Your task to perform on an android device: turn off smart reply in the gmail app Image 0: 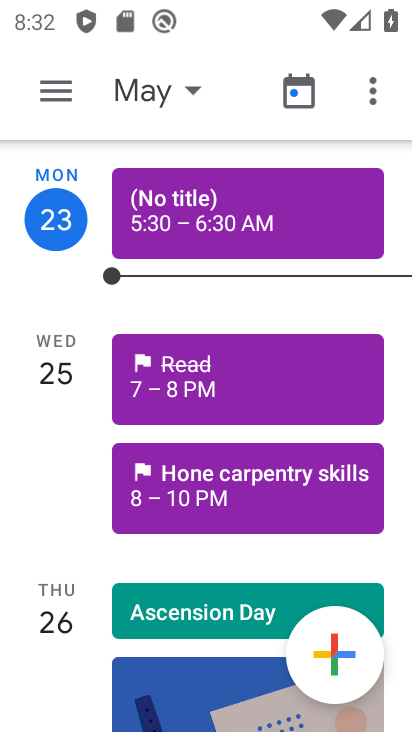
Step 0: press home button
Your task to perform on an android device: turn off smart reply in the gmail app Image 1: 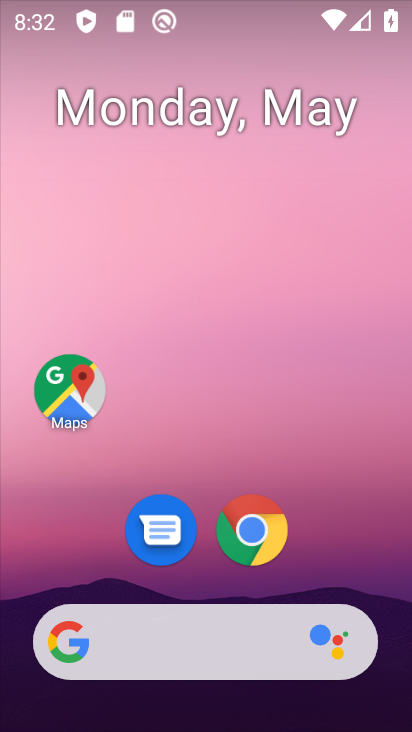
Step 1: drag from (398, 604) to (284, 165)
Your task to perform on an android device: turn off smart reply in the gmail app Image 2: 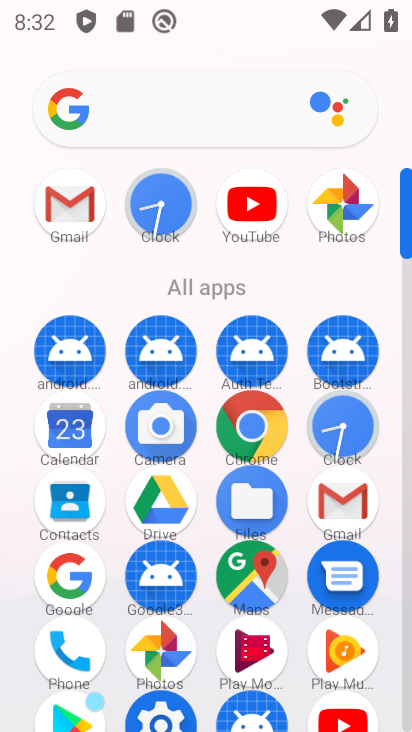
Step 2: click (82, 202)
Your task to perform on an android device: turn off smart reply in the gmail app Image 3: 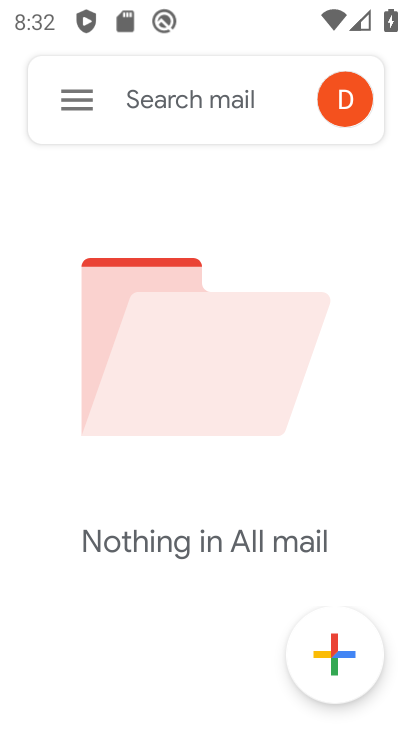
Step 3: click (82, 103)
Your task to perform on an android device: turn off smart reply in the gmail app Image 4: 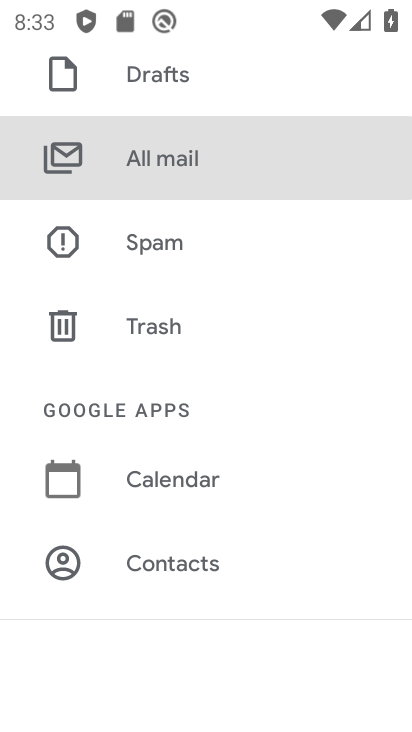
Step 4: drag from (172, 620) to (203, 170)
Your task to perform on an android device: turn off smart reply in the gmail app Image 5: 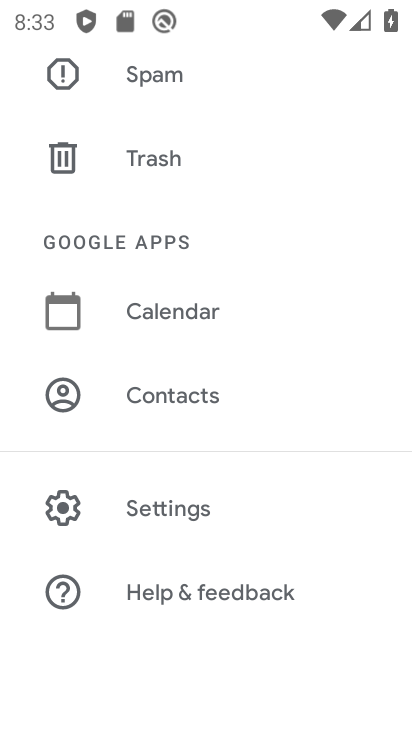
Step 5: click (175, 501)
Your task to perform on an android device: turn off smart reply in the gmail app Image 6: 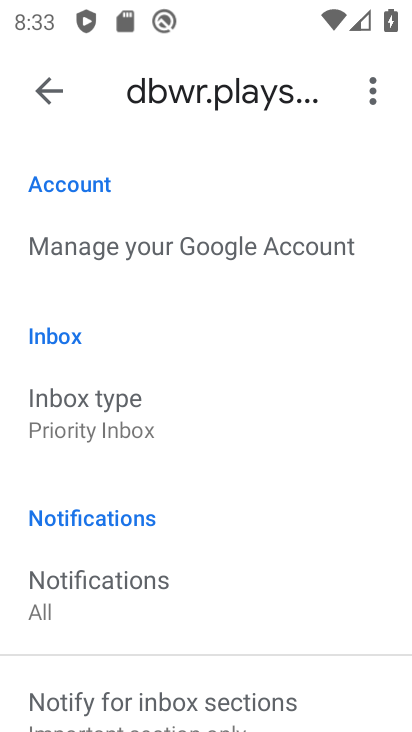
Step 6: drag from (227, 688) to (161, 104)
Your task to perform on an android device: turn off smart reply in the gmail app Image 7: 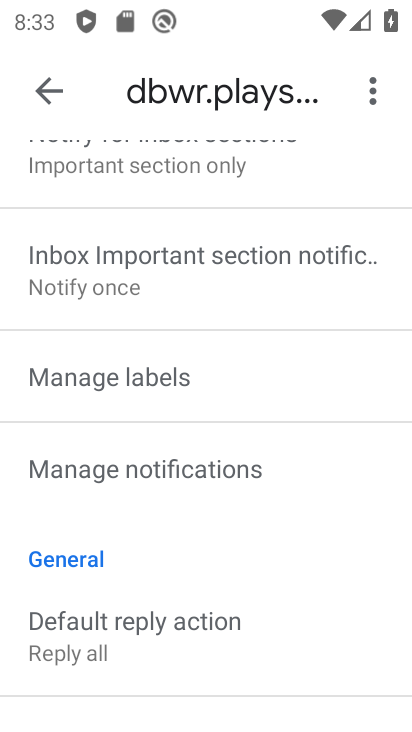
Step 7: drag from (236, 607) to (207, 180)
Your task to perform on an android device: turn off smart reply in the gmail app Image 8: 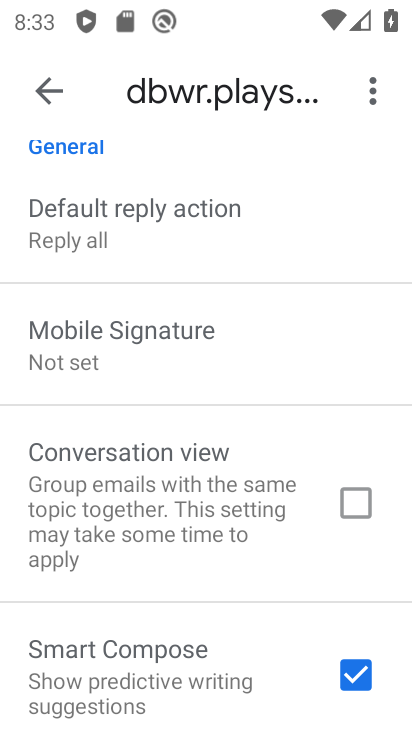
Step 8: drag from (275, 725) to (246, 253)
Your task to perform on an android device: turn off smart reply in the gmail app Image 9: 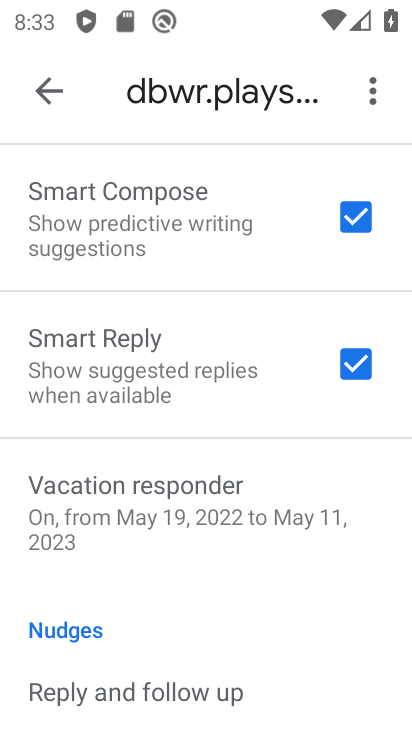
Step 9: click (348, 373)
Your task to perform on an android device: turn off smart reply in the gmail app Image 10: 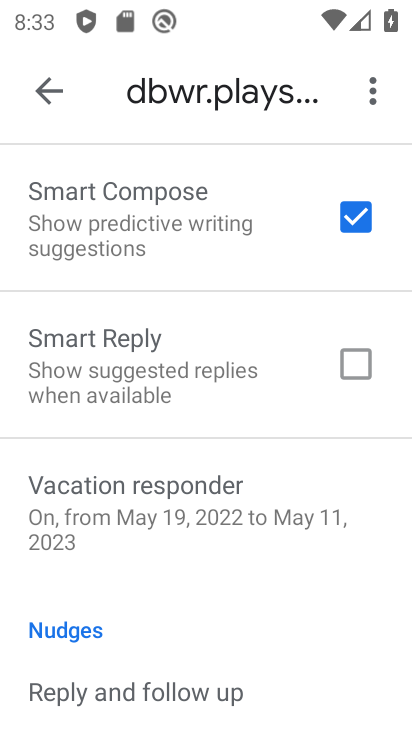
Step 10: task complete